Your task to perform on an android device: turn off airplane mode Image 0: 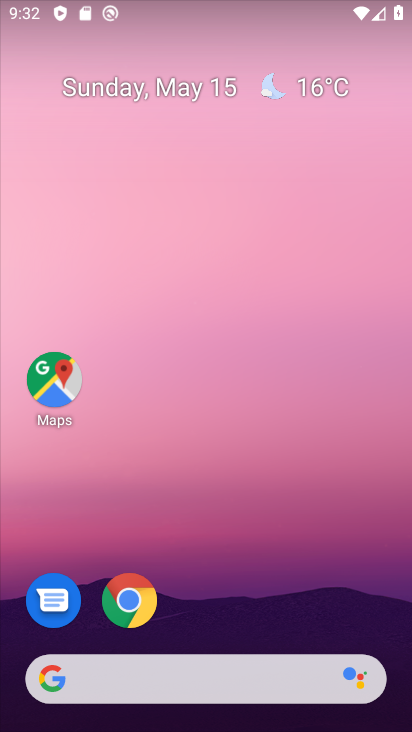
Step 0: click (210, 667)
Your task to perform on an android device: turn off airplane mode Image 1: 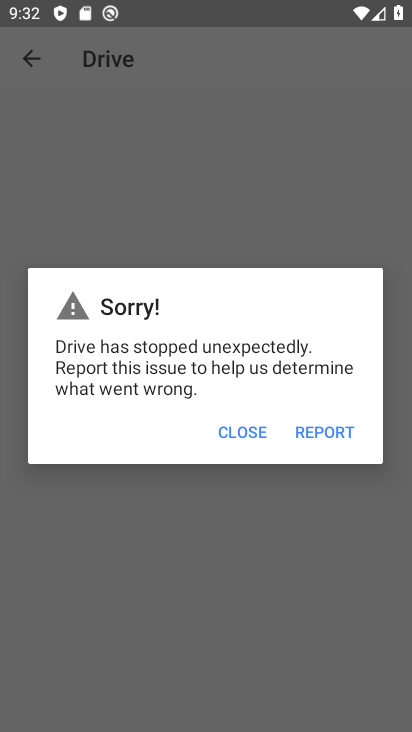
Step 1: click (233, 438)
Your task to perform on an android device: turn off airplane mode Image 2: 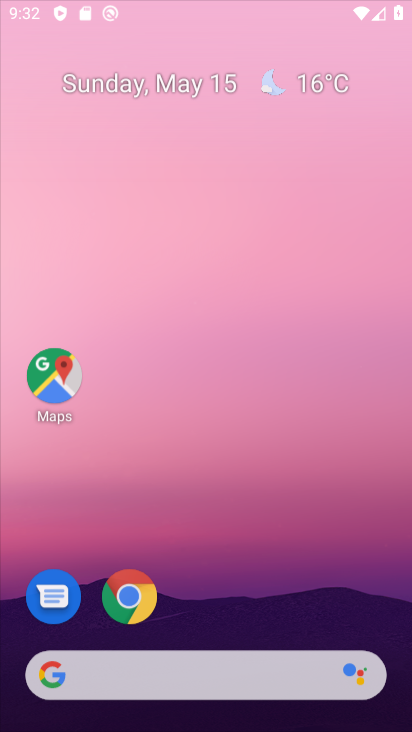
Step 2: press home button
Your task to perform on an android device: turn off airplane mode Image 3: 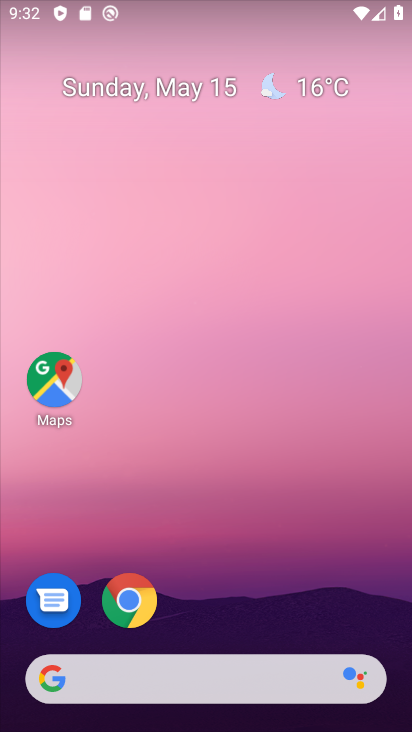
Step 3: drag from (205, 630) to (171, 4)
Your task to perform on an android device: turn off airplane mode Image 4: 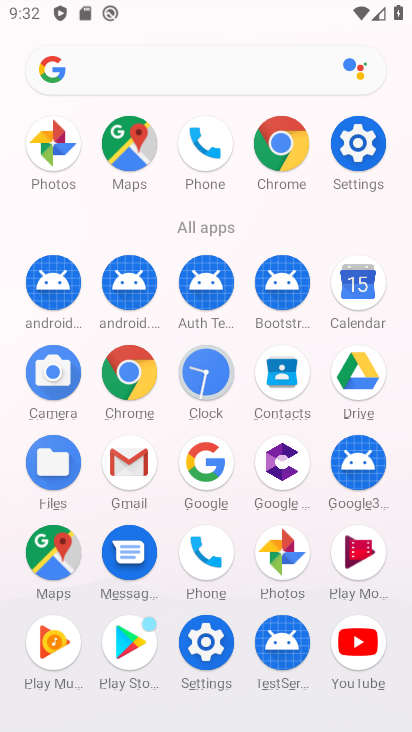
Step 4: click (354, 148)
Your task to perform on an android device: turn off airplane mode Image 5: 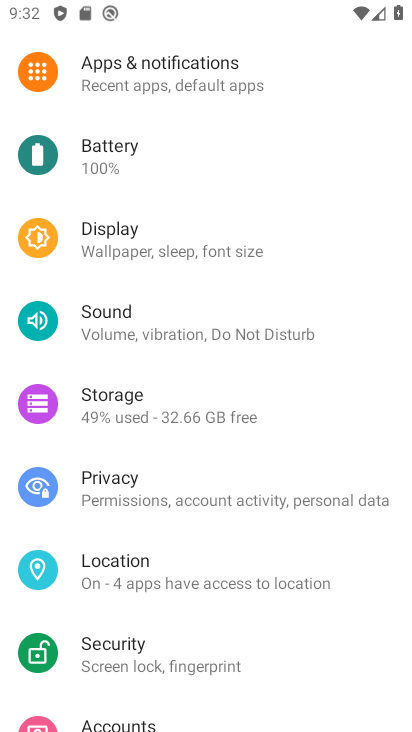
Step 5: drag from (223, 165) to (174, 702)
Your task to perform on an android device: turn off airplane mode Image 6: 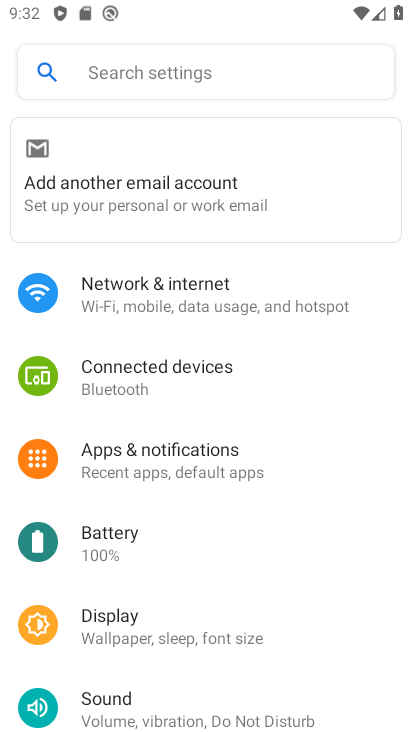
Step 6: click (158, 301)
Your task to perform on an android device: turn off airplane mode Image 7: 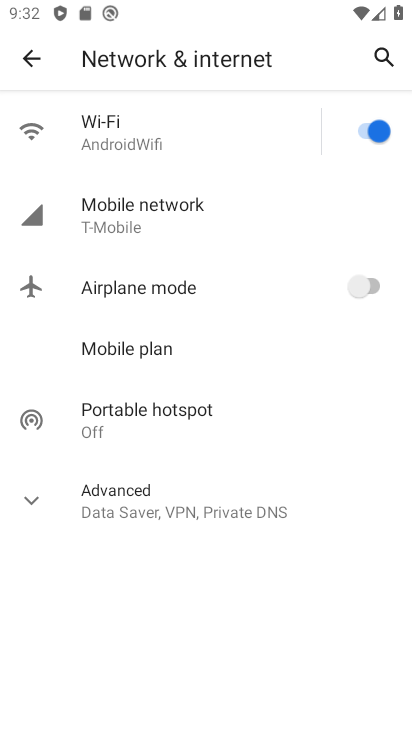
Step 7: task complete